Your task to perform on an android device: What's the latest news in planetary science? Image 0: 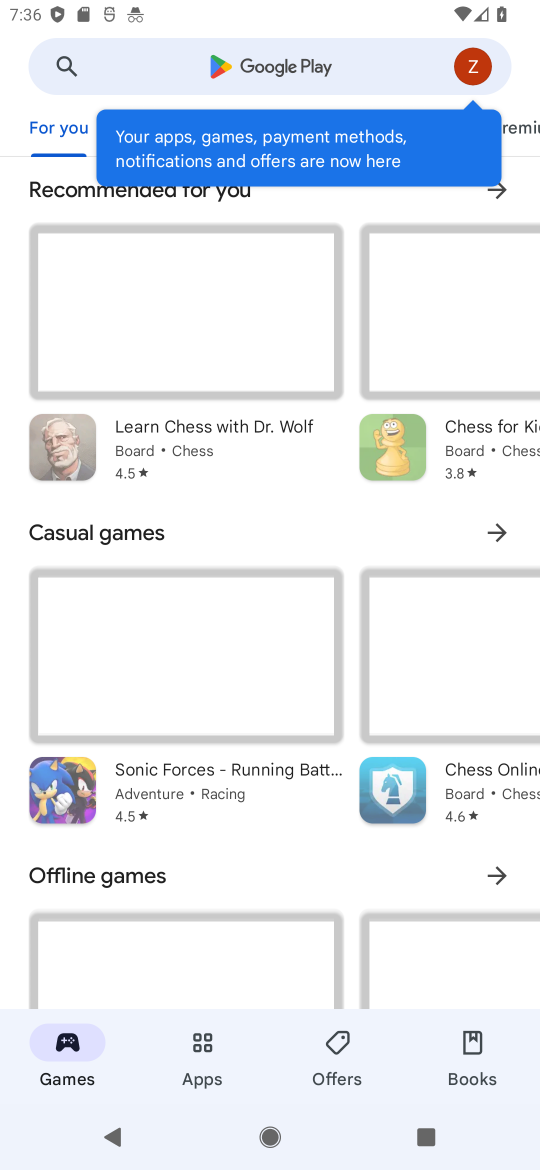
Step 0: press home button
Your task to perform on an android device: What's the latest news in planetary science? Image 1: 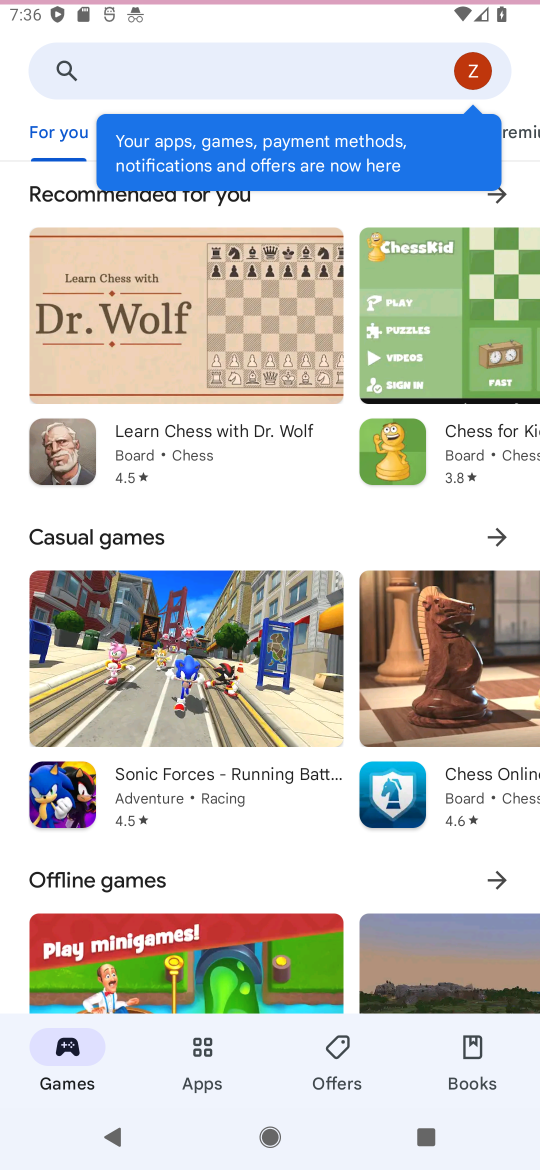
Step 1: press home button
Your task to perform on an android device: What's the latest news in planetary science? Image 2: 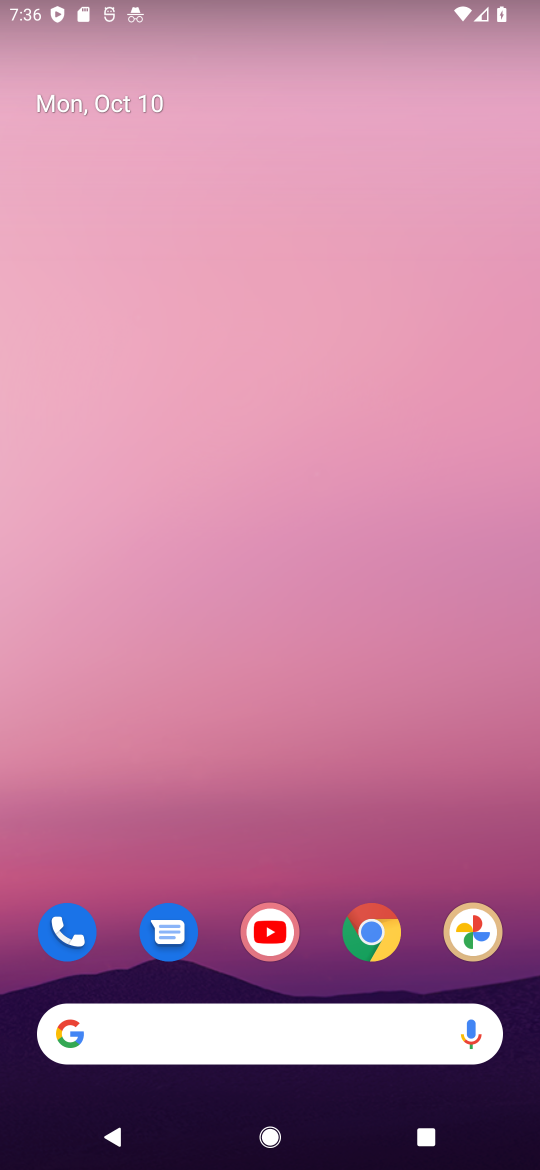
Step 2: drag from (421, 976) to (414, 238)
Your task to perform on an android device: What's the latest news in planetary science? Image 3: 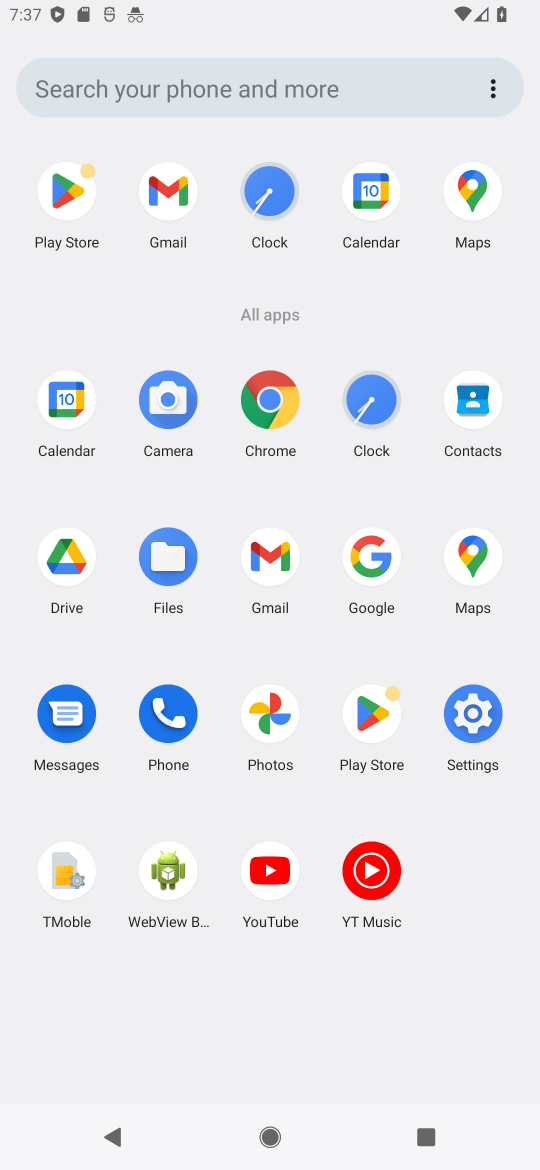
Step 3: click (267, 400)
Your task to perform on an android device: What's the latest news in planetary science? Image 4: 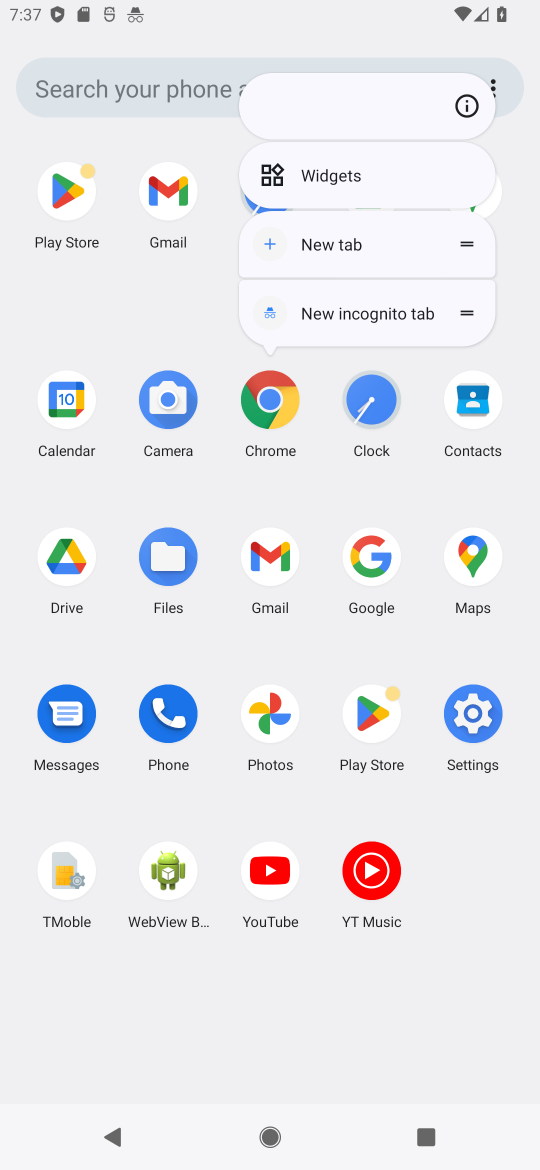
Step 4: click (267, 400)
Your task to perform on an android device: What's the latest news in planetary science? Image 5: 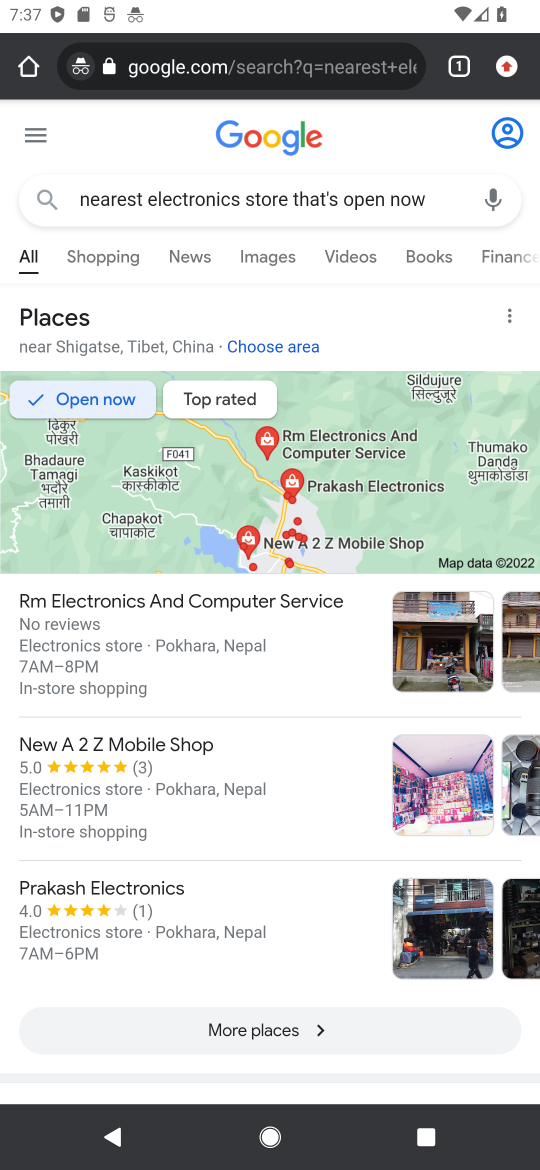
Step 5: click (274, 60)
Your task to perform on an android device: What's the latest news in planetary science? Image 6: 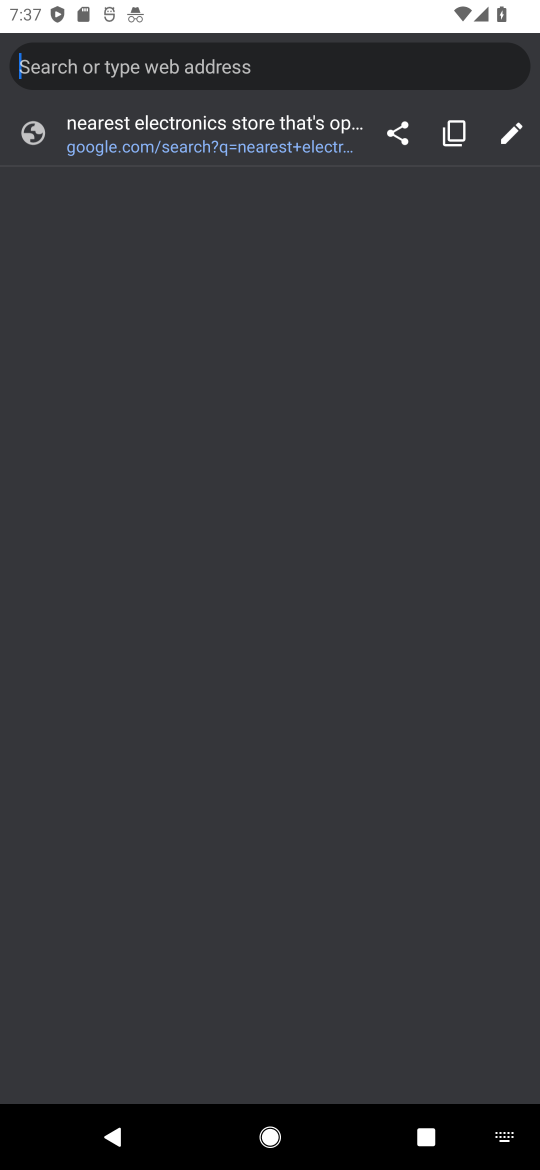
Step 6: type "What's the latest news in planetary science"
Your task to perform on an android device: What's the latest news in planetary science? Image 7: 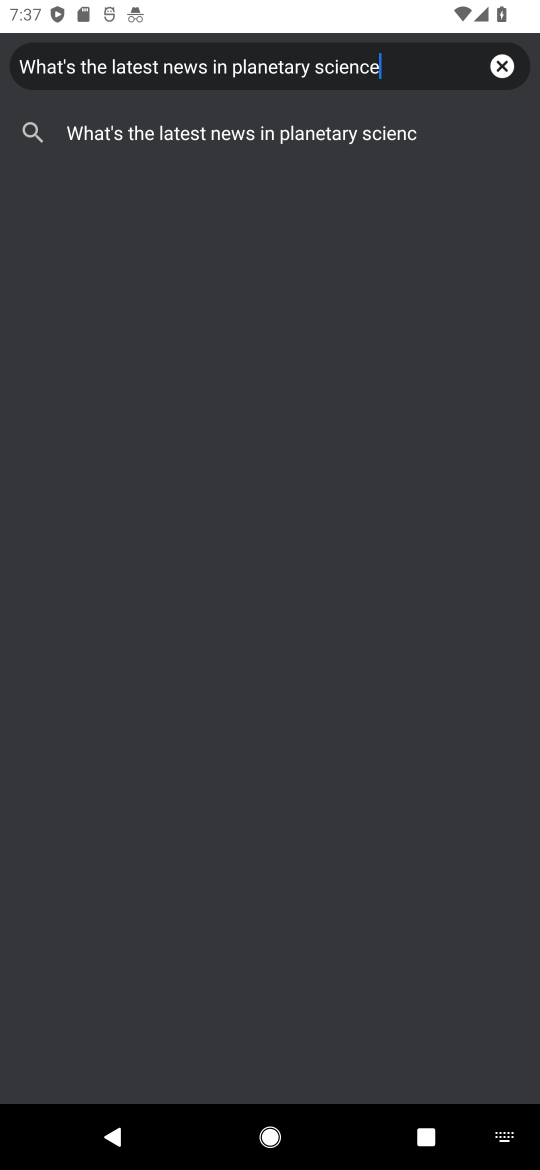
Step 7: type "?"
Your task to perform on an android device: What's the latest news in planetary science? Image 8: 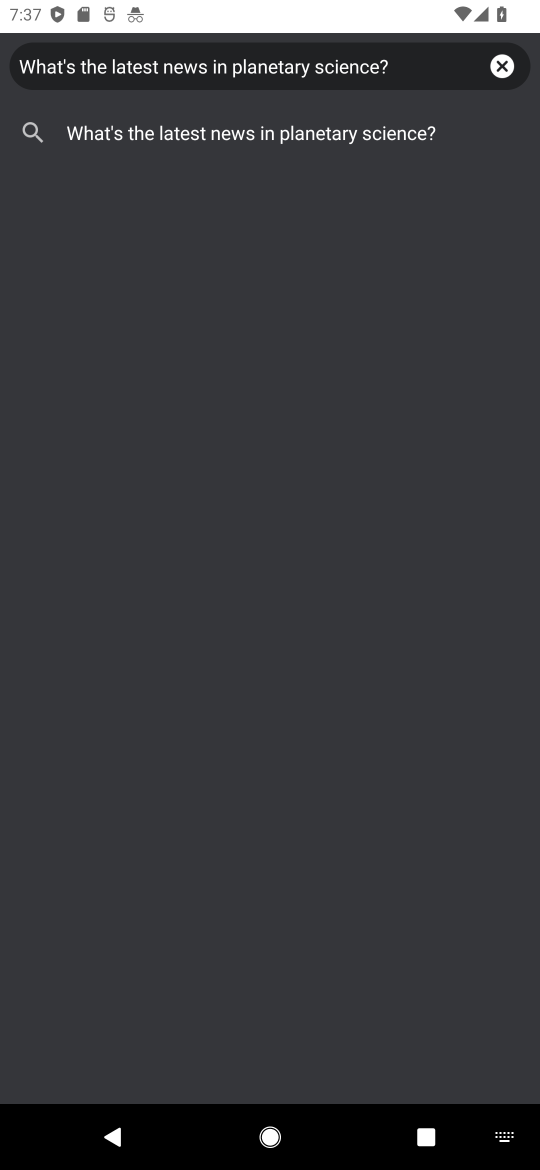
Step 8: press enter
Your task to perform on an android device: What's the latest news in planetary science? Image 9: 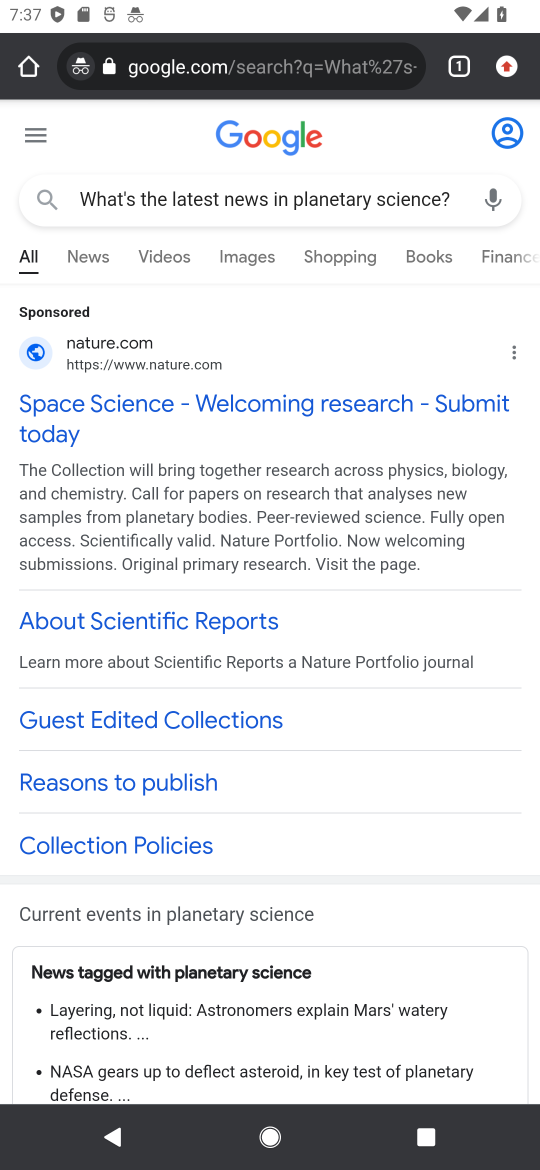
Step 9: click (194, 395)
Your task to perform on an android device: What's the latest news in planetary science? Image 10: 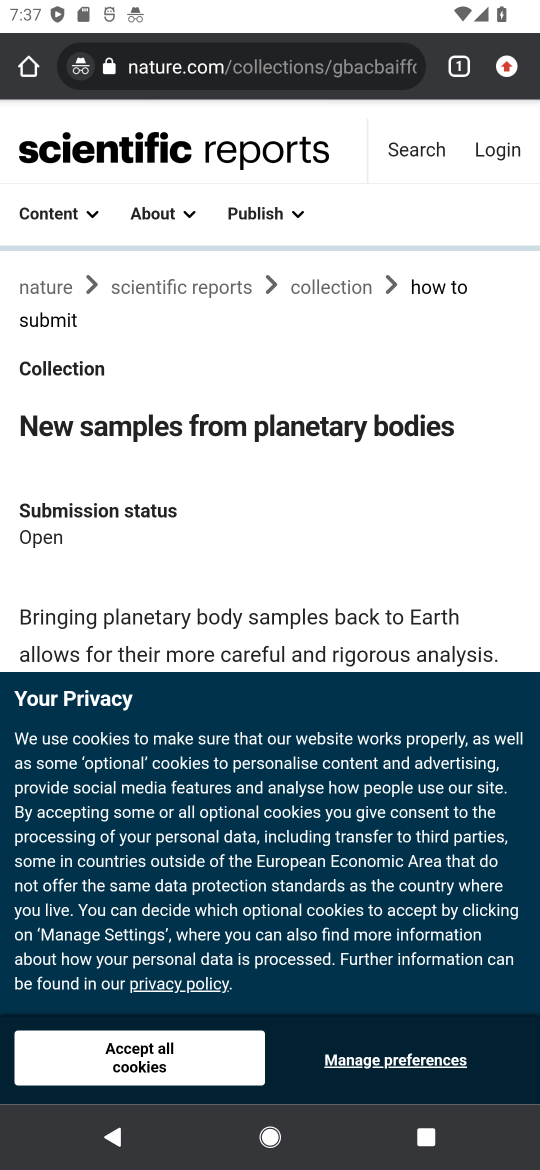
Step 10: task complete